Your task to perform on an android device: Open maps Image 0: 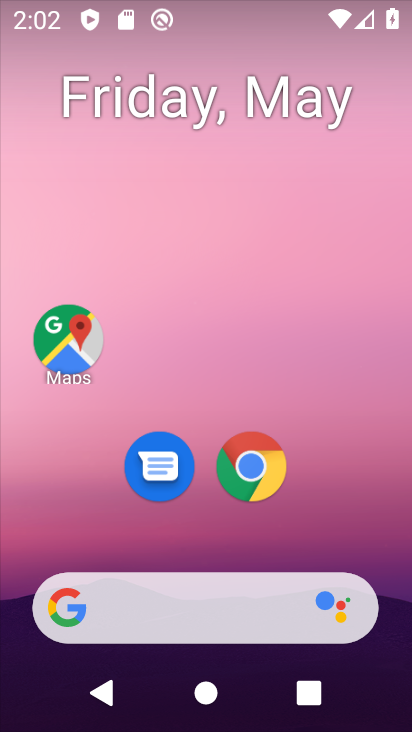
Step 0: click (88, 345)
Your task to perform on an android device: Open maps Image 1: 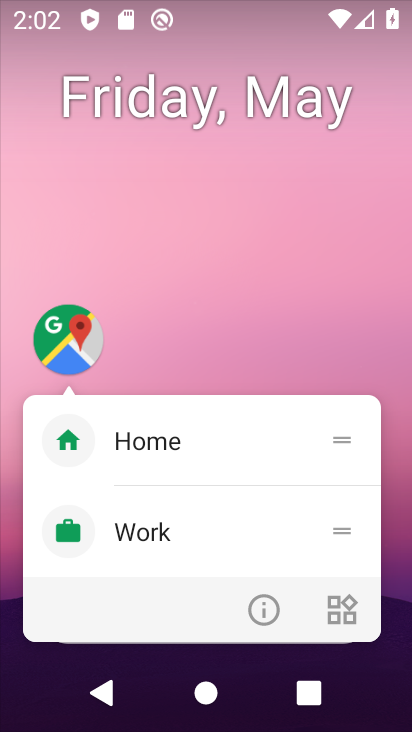
Step 1: click (87, 350)
Your task to perform on an android device: Open maps Image 2: 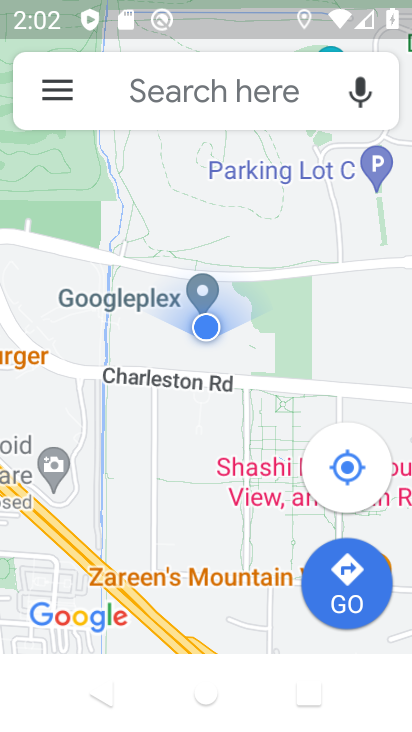
Step 2: task complete